Your task to perform on an android device: Check the news Image 0: 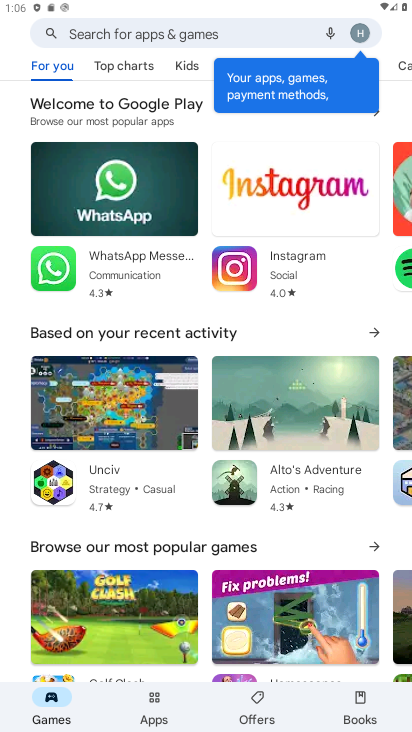
Step 0: press home button
Your task to perform on an android device: Check the news Image 1: 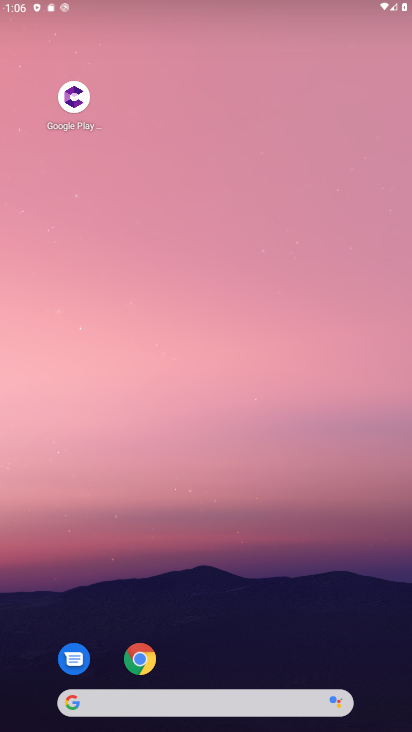
Step 1: drag from (228, 455) to (267, 7)
Your task to perform on an android device: Check the news Image 2: 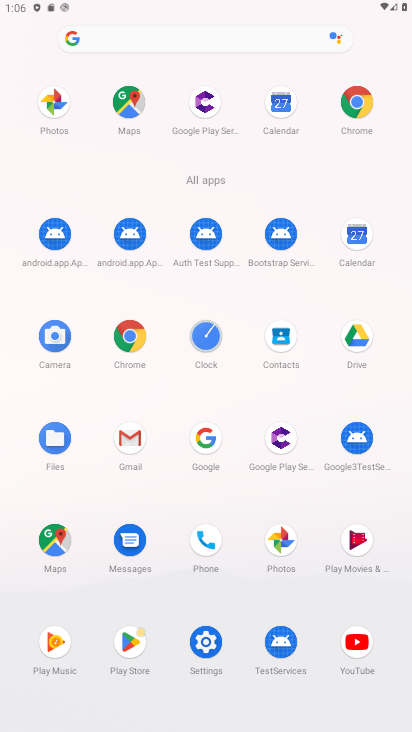
Step 2: click (361, 105)
Your task to perform on an android device: Check the news Image 3: 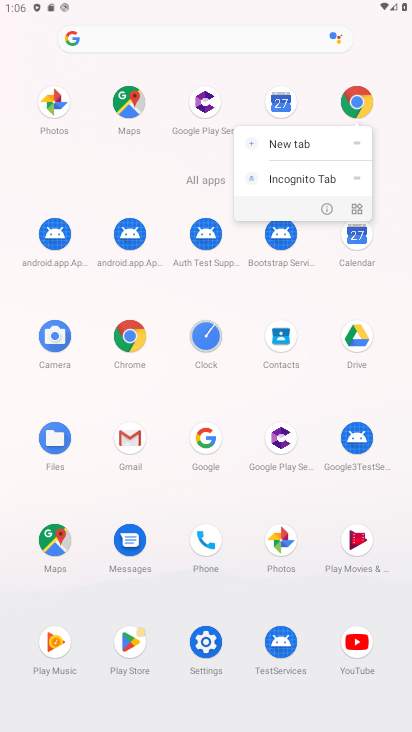
Step 3: click (361, 105)
Your task to perform on an android device: Check the news Image 4: 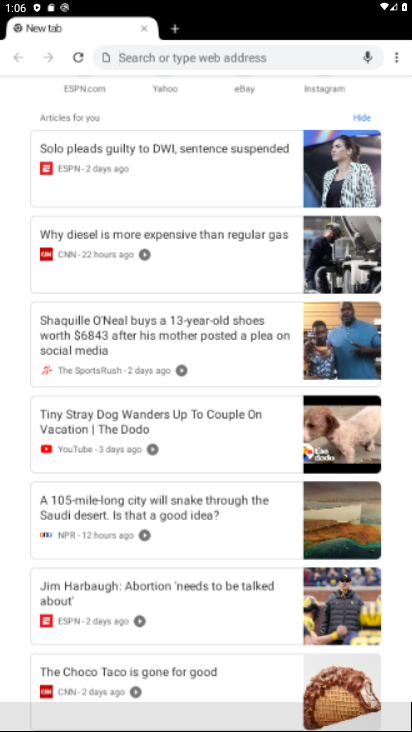
Step 4: task complete